Your task to perform on an android device: turn on the 12-hour format for clock Image 0: 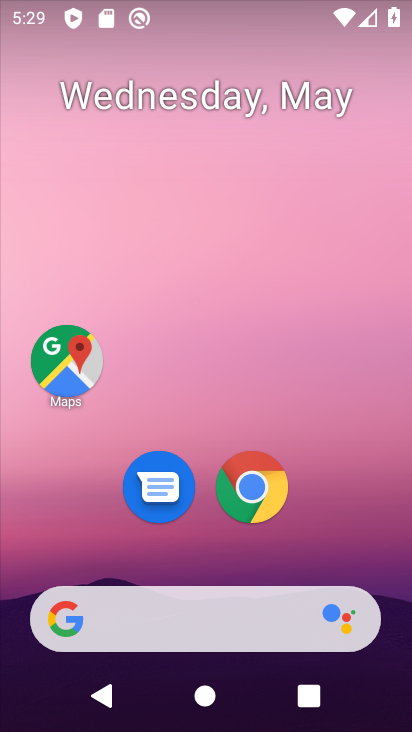
Step 0: drag from (208, 556) to (185, 117)
Your task to perform on an android device: turn on the 12-hour format for clock Image 1: 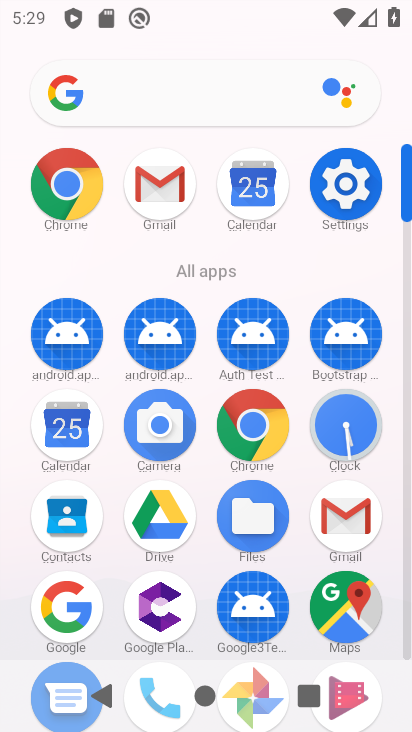
Step 1: click (346, 192)
Your task to perform on an android device: turn on the 12-hour format for clock Image 2: 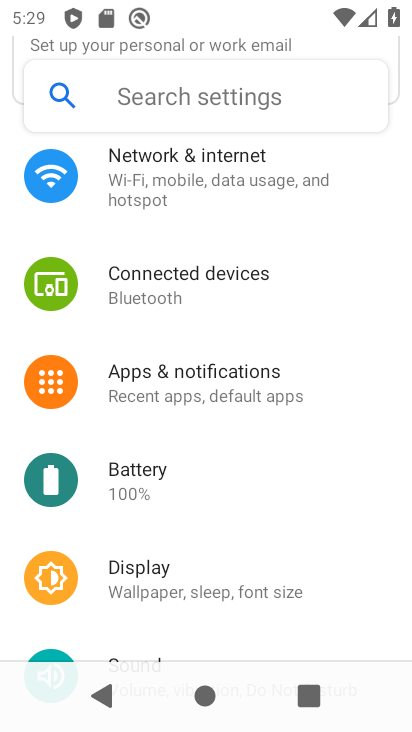
Step 2: press back button
Your task to perform on an android device: turn on the 12-hour format for clock Image 3: 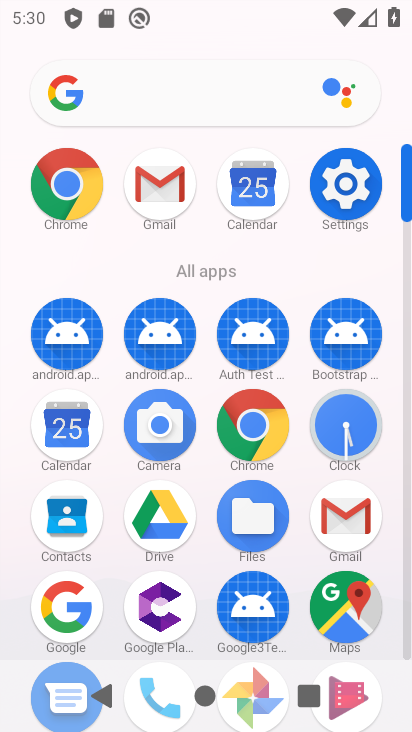
Step 3: press home button
Your task to perform on an android device: turn on the 12-hour format for clock Image 4: 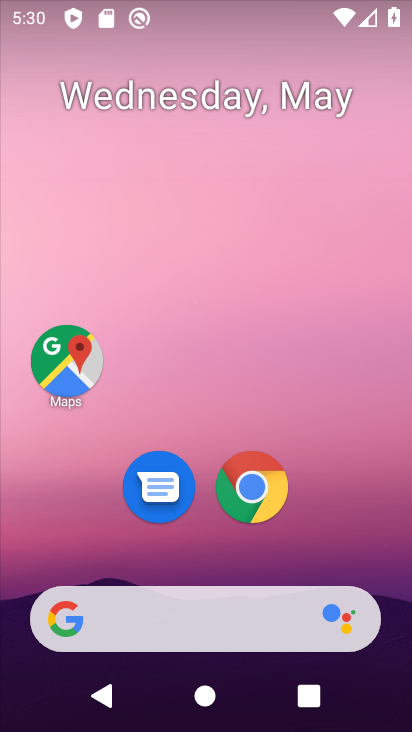
Step 4: drag from (277, 555) to (257, 143)
Your task to perform on an android device: turn on the 12-hour format for clock Image 5: 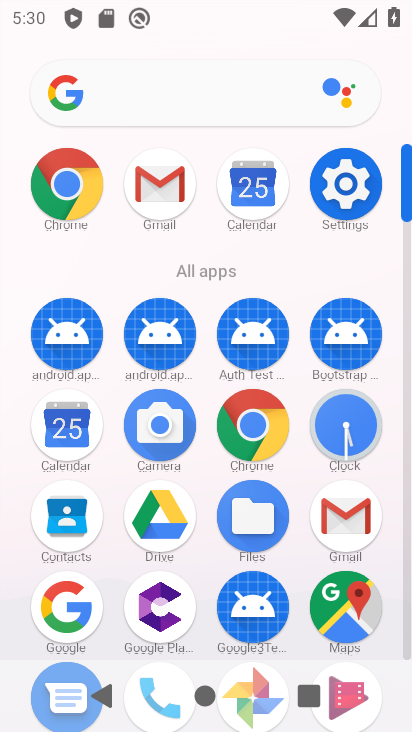
Step 5: click (344, 411)
Your task to perform on an android device: turn on the 12-hour format for clock Image 6: 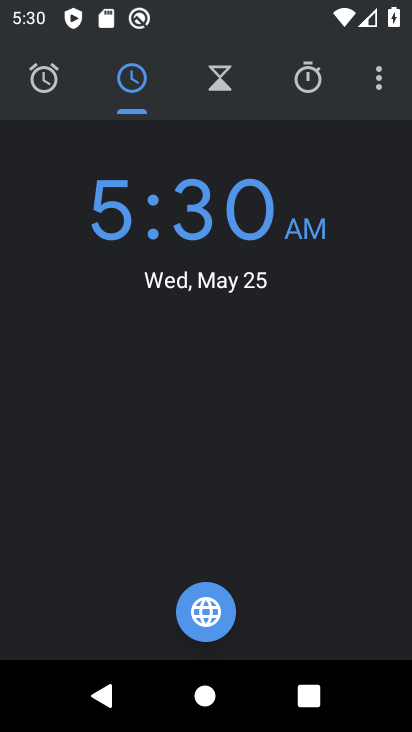
Step 6: click (367, 78)
Your task to perform on an android device: turn on the 12-hour format for clock Image 7: 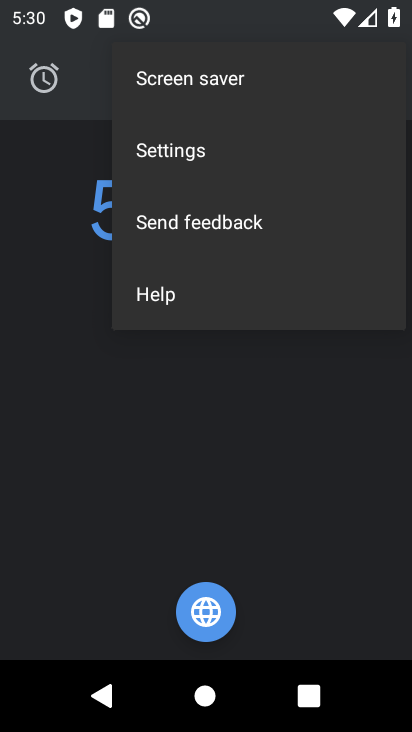
Step 7: click (225, 169)
Your task to perform on an android device: turn on the 12-hour format for clock Image 8: 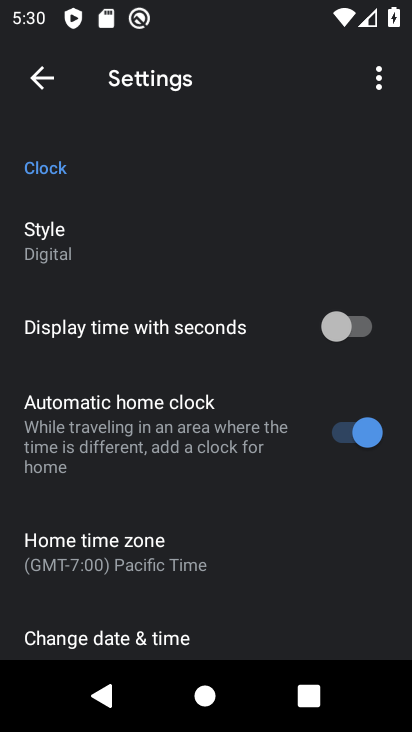
Step 8: click (98, 646)
Your task to perform on an android device: turn on the 12-hour format for clock Image 9: 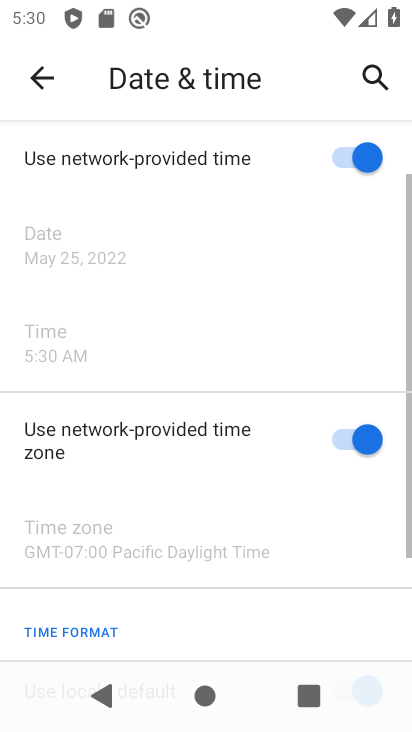
Step 9: task complete